Your task to perform on an android device: turn on priority inbox in the gmail app Image 0: 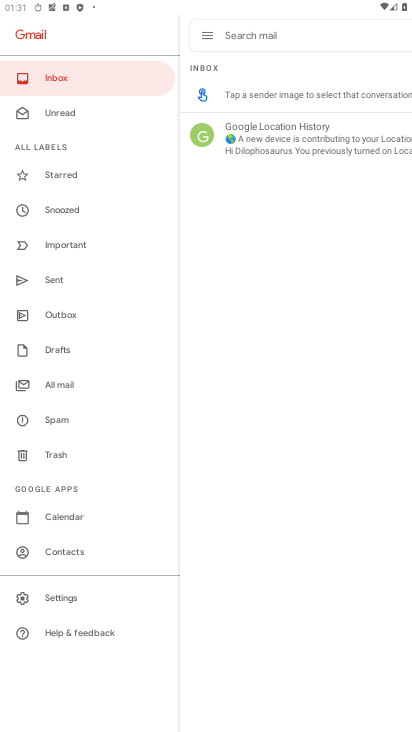
Step 0: click (46, 598)
Your task to perform on an android device: turn on priority inbox in the gmail app Image 1: 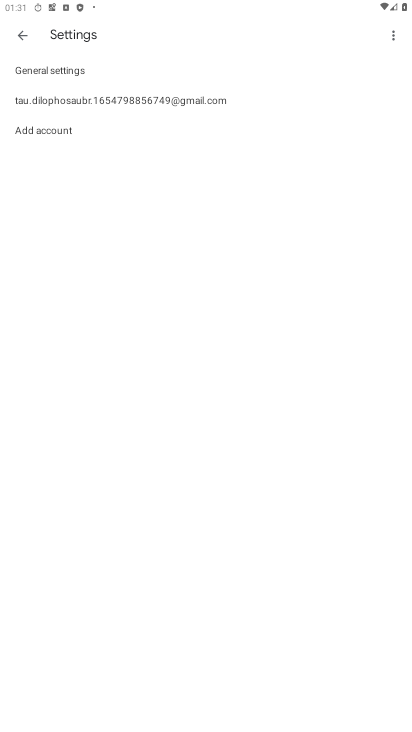
Step 1: click (211, 108)
Your task to perform on an android device: turn on priority inbox in the gmail app Image 2: 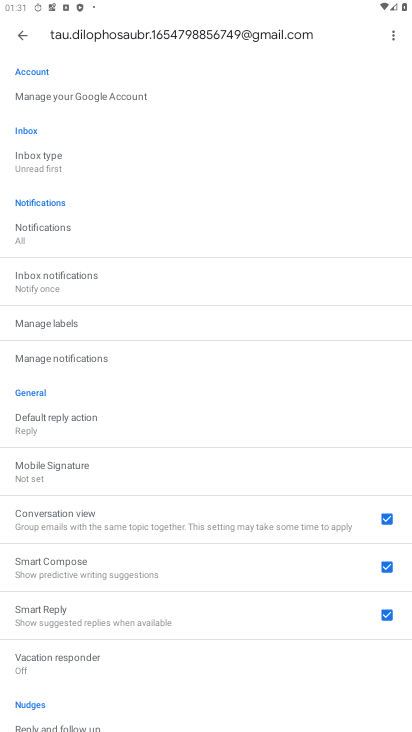
Step 2: click (62, 172)
Your task to perform on an android device: turn on priority inbox in the gmail app Image 3: 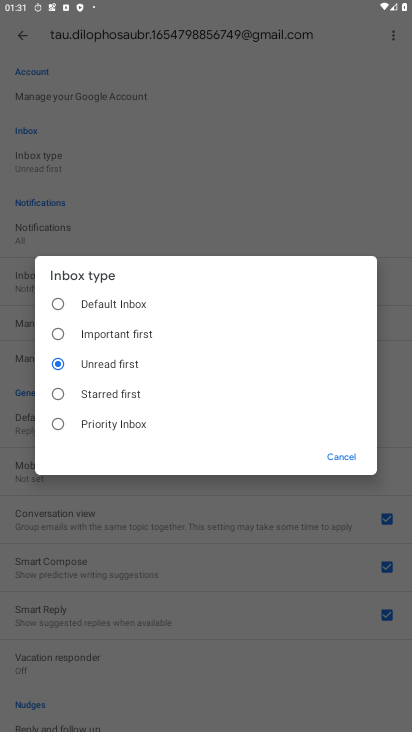
Step 3: click (79, 419)
Your task to perform on an android device: turn on priority inbox in the gmail app Image 4: 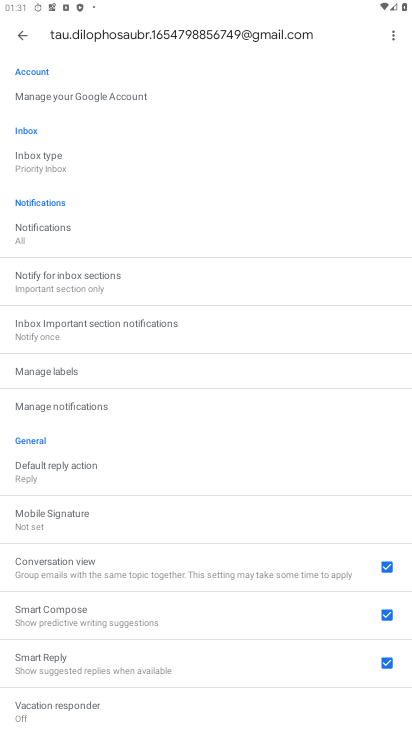
Step 4: task complete